Your task to perform on an android device: Open Android settings Image 0: 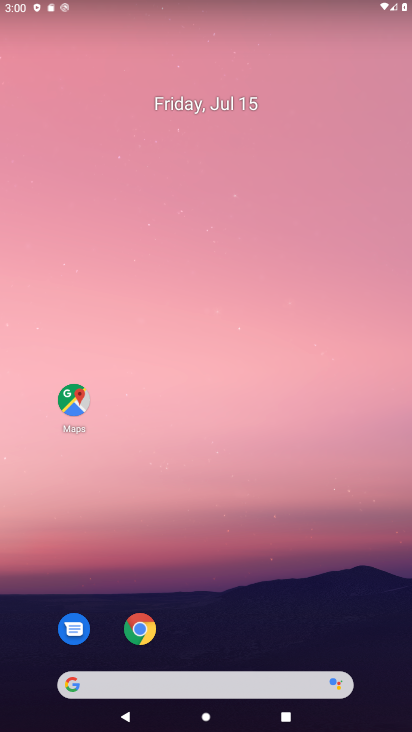
Step 0: drag from (180, 555) to (24, 79)
Your task to perform on an android device: Open Android settings Image 1: 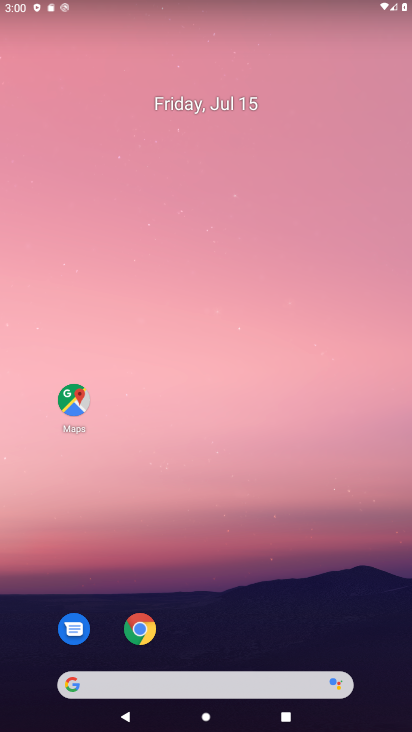
Step 1: drag from (142, 277) to (96, 66)
Your task to perform on an android device: Open Android settings Image 2: 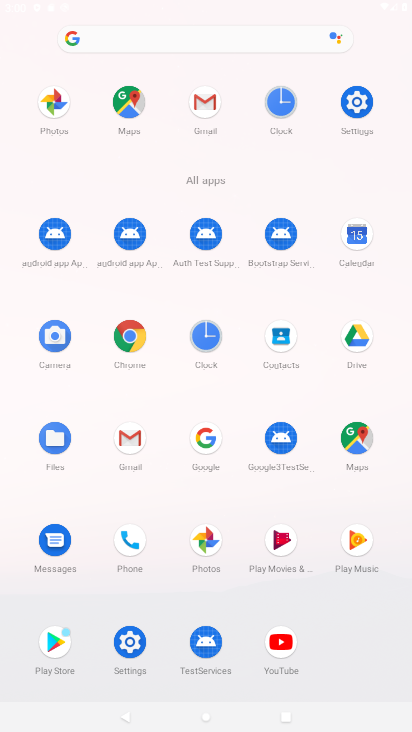
Step 2: drag from (258, 530) to (172, 29)
Your task to perform on an android device: Open Android settings Image 3: 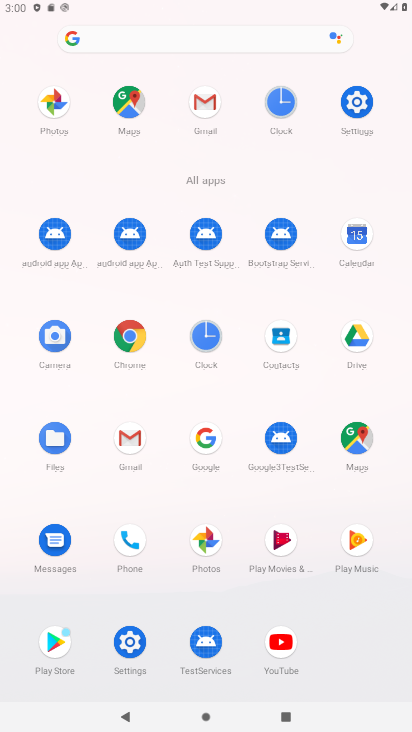
Step 3: click (364, 109)
Your task to perform on an android device: Open Android settings Image 4: 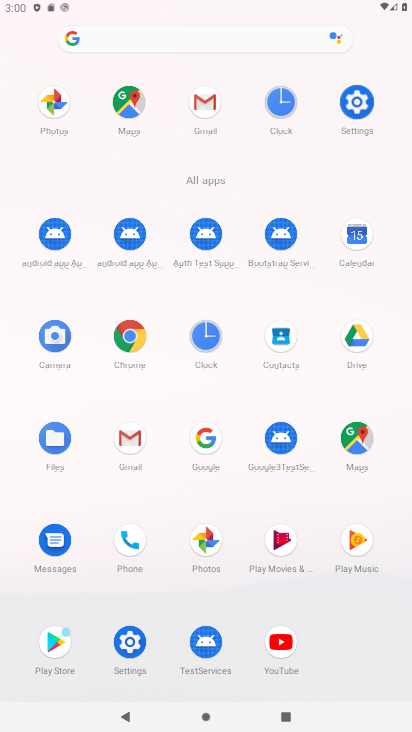
Step 4: click (363, 108)
Your task to perform on an android device: Open Android settings Image 5: 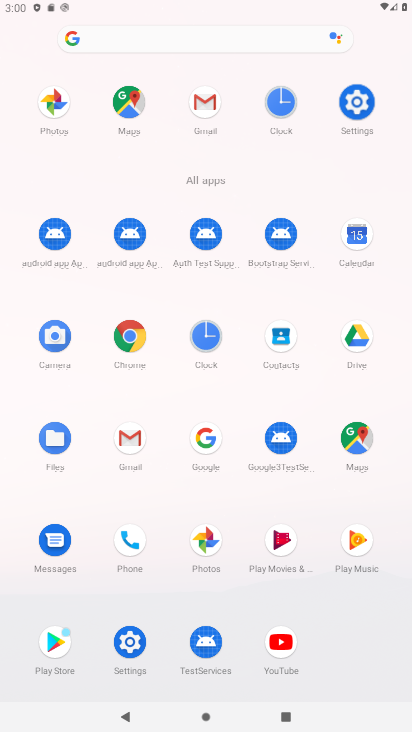
Step 5: click (363, 108)
Your task to perform on an android device: Open Android settings Image 6: 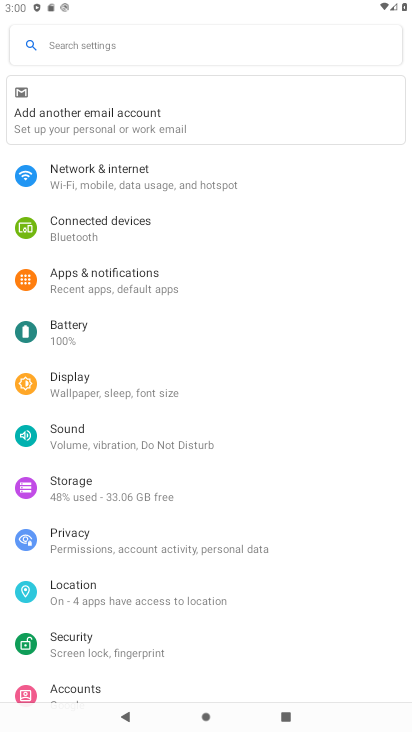
Step 6: drag from (94, 593) to (102, 191)
Your task to perform on an android device: Open Android settings Image 7: 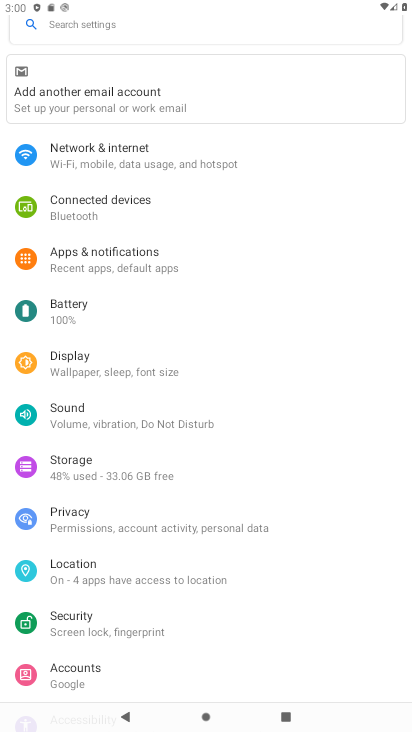
Step 7: drag from (156, 561) to (131, 170)
Your task to perform on an android device: Open Android settings Image 8: 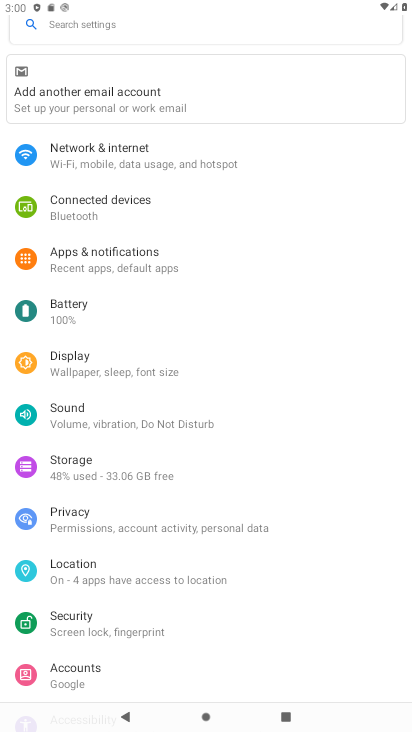
Step 8: drag from (141, 467) to (86, 171)
Your task to perform on an android device: Open Android settings Image 9: 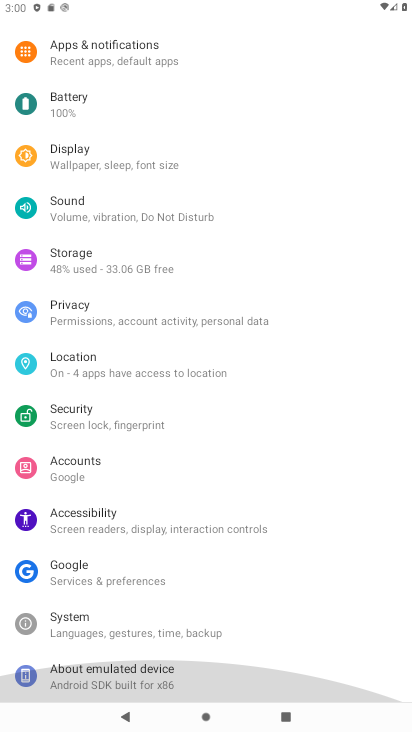
Step 9: drag from (134, 566) to (141, 317)
Your task to perform on an android device: Open Android settings Image 10: 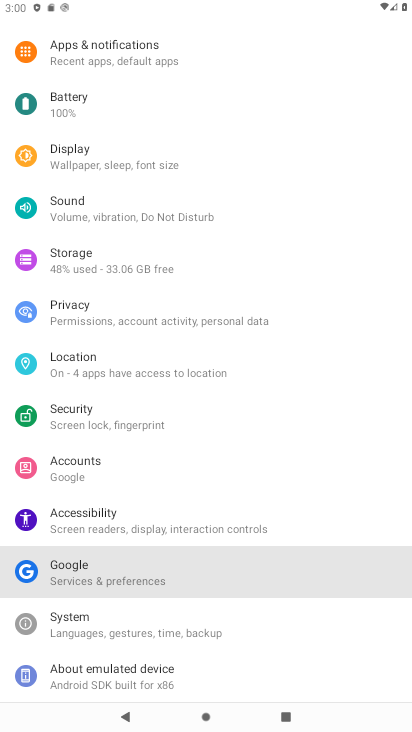
Step 10: drag from (132, 557) to (114, 406)
Your task to perform on an android device: Open Android settings Image 11: 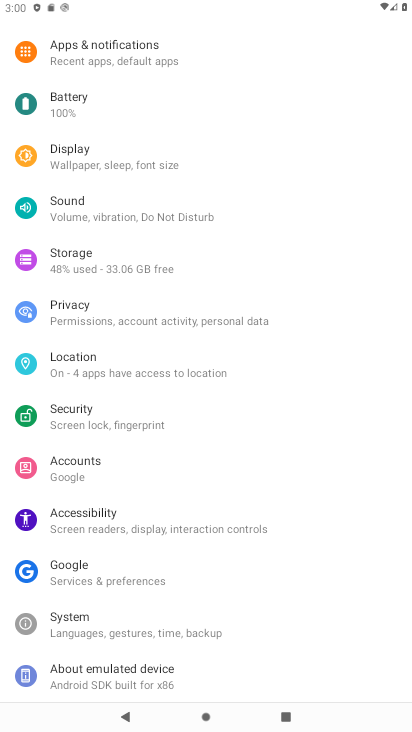
Step 11: click (71, 677)
Your task to perform on an android device: Open Android settings Image 12: 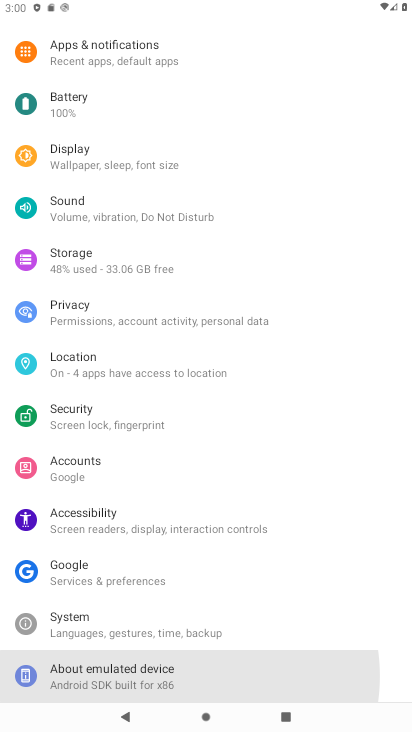
Step 12: click (78, 679)
Your task to perform on an android device: Open Android settings Image 13: 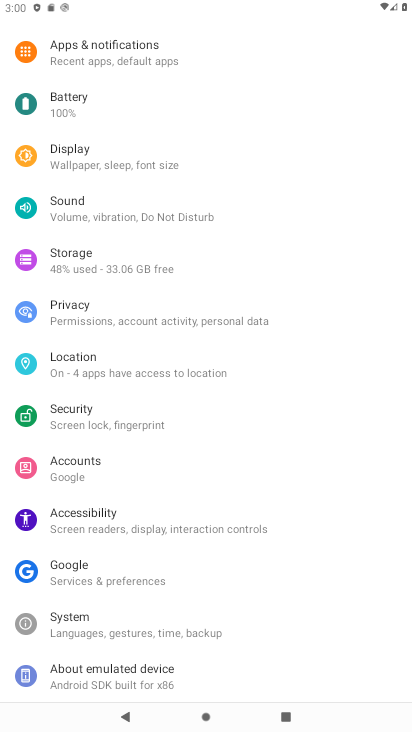
Step 13: click (83, 677)
Your task to perform on an android device: Open Android settings Image 14: 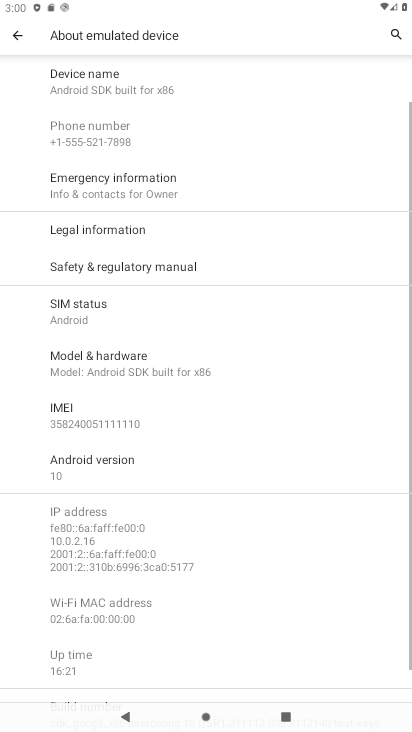
Step 14: click (122, 684)
Your task to perform on an android device: Open Android settings Image 15: 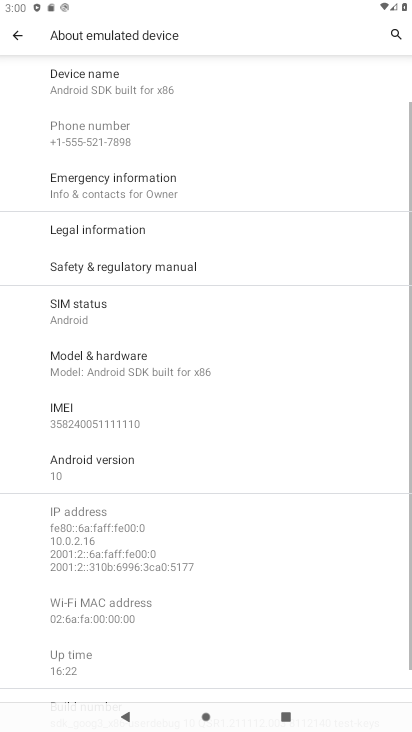
Step 15: task complete